Your task to perform on an android device: Empty the shopping cart on bestbuy.com. Add logitech g pro to the cart on bestbuy.com, then select checkout. Image 0: 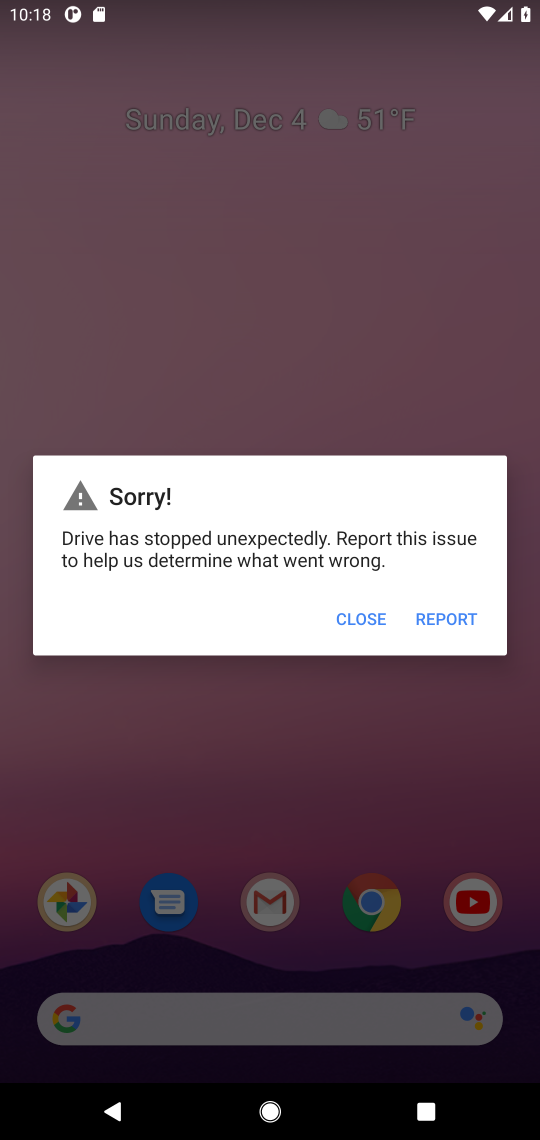
Step 0: click (353, 632)
Your task to perform on an android device: Empty the shopping cart on bestbuy.com. Add logitech g pro to the cart on bestbuy.com, then select checkout. Image 1: 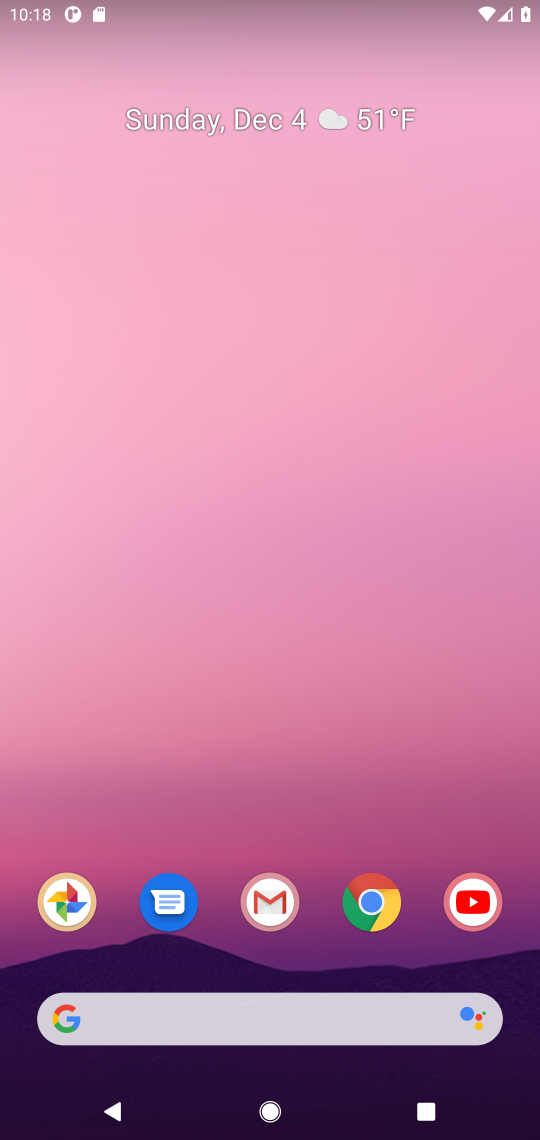
Step 1: click (384, 917)
Your task to perform on an android device: Empty the shopping cart on bestbuy.com. Add logitech g pro to the cart on bestbuy.com, then select checkout. Image 2: 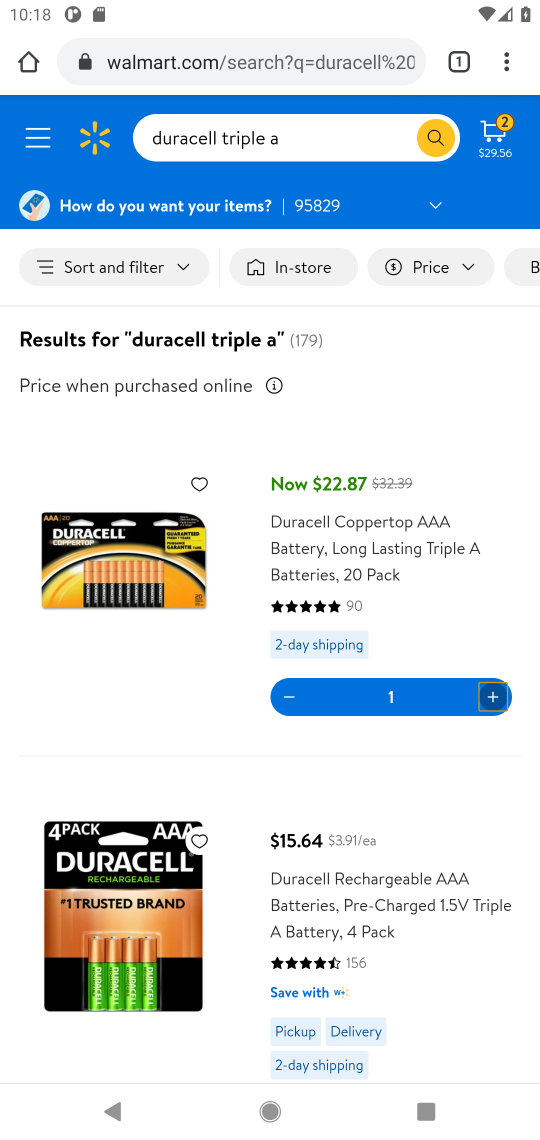
Step 2: click (488, 142)
Your task to perform on an android device: Empty the shopping cart on bestbuy.com. Add logitech g pro to the cart on bestbuy.com, then select checkout. Image 3: 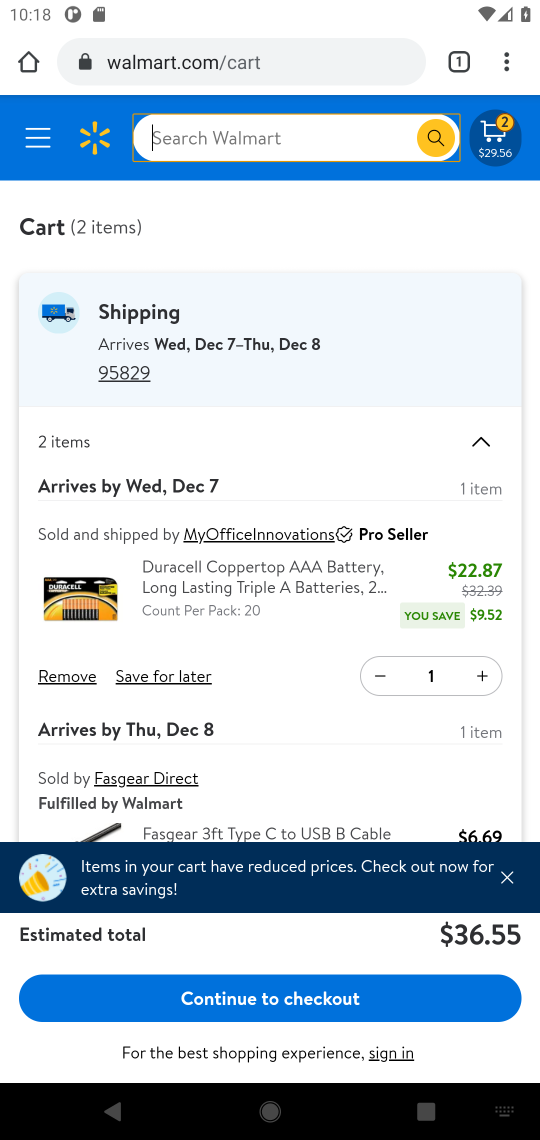
Step 3: click (67, 672)
Your task to perform on an android device: Empty the shopping cart on bestbuy.com. Add logitech g pro to the cart on bestbuy.com, then select checkout. Image 4: 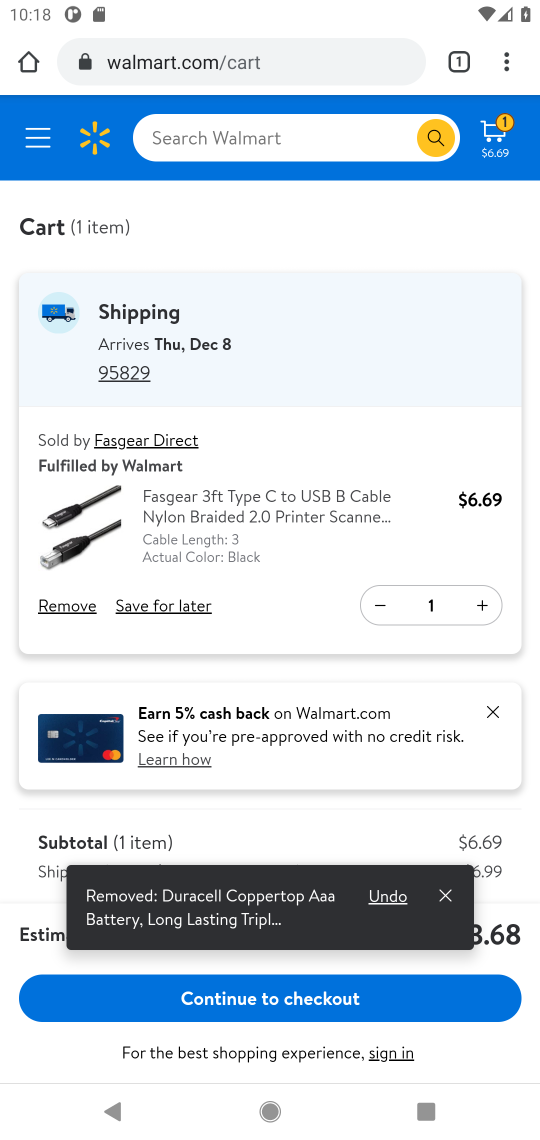
Step 4: click (58, 612)
Your task to perform on an android device: Empty the shopping cart on bestbuy.com. Add logitech g pro to the cart on bestbuy.com, then select checkout. Image 5: 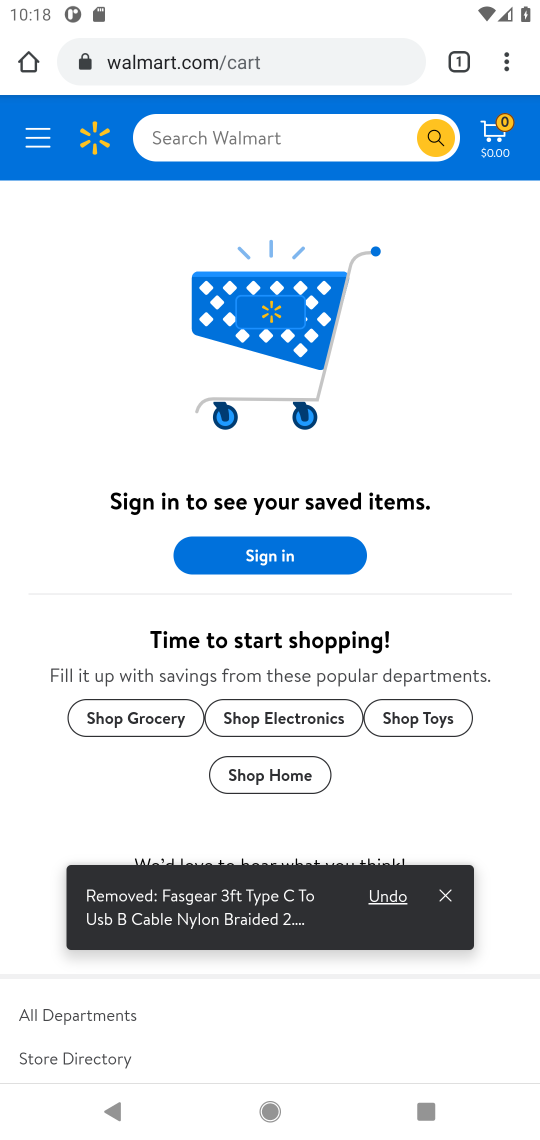
Step 5: click (217, 133)
Your task to perform on an android device: Empty the shopping cart on bestbuy.com. Add logitech g pro to the cart on bestbuy.com, then select checkout. Image 6: 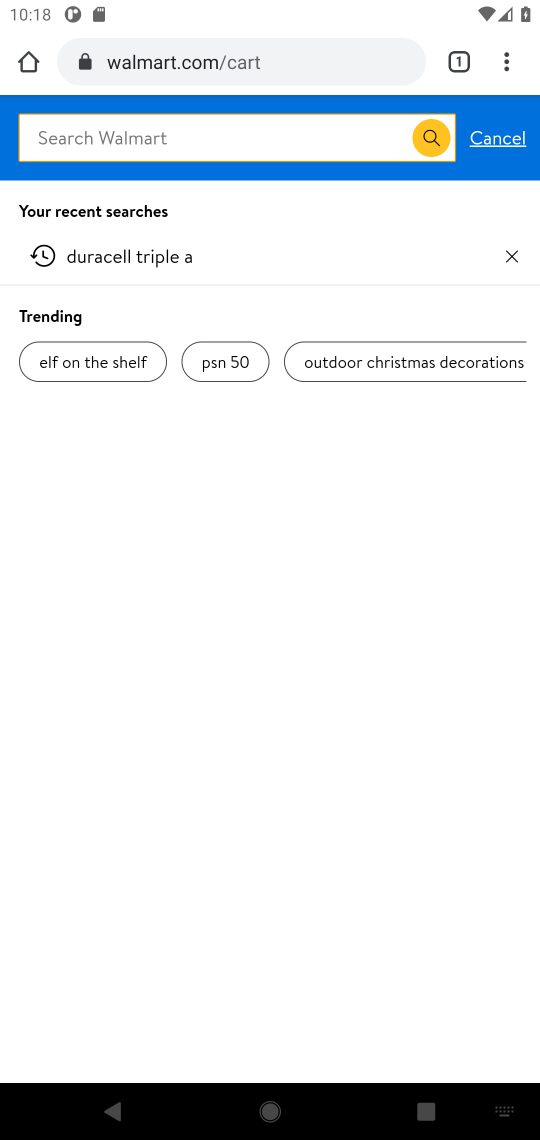
Step 6: type "logitech g pro "
Your task to perform on an android device: Empty the shopping cart on bestbuy.com. Add logitech g pro to the cart on bestbuy.com, then select checkout. Image 7: 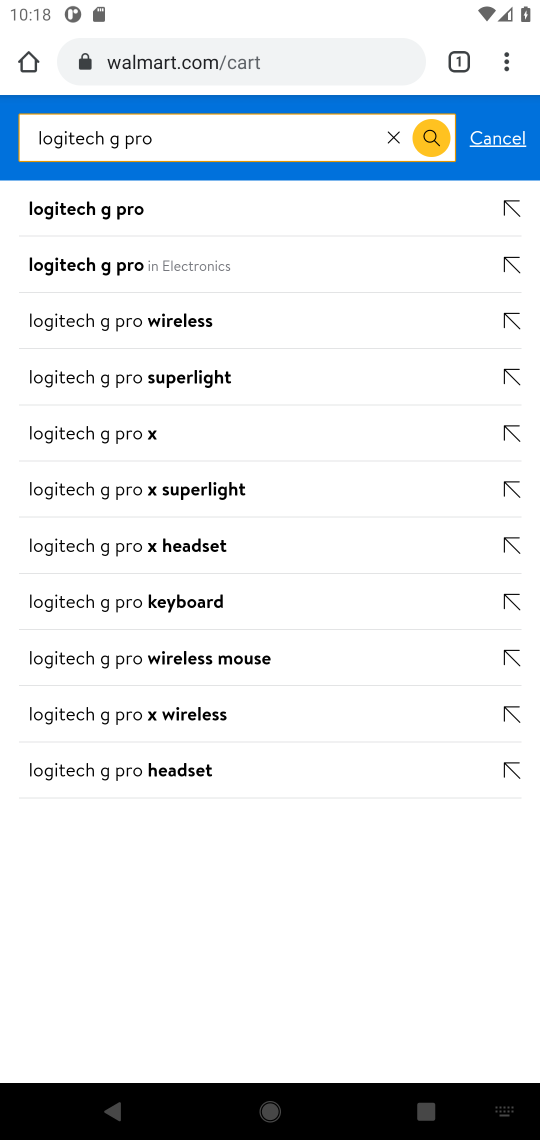
Step 7: click (129, 221)
Your task to perform on an android device: Empty the shopping cart on bestbuy.com. Add logitech g pro to the cart on bestbuy.com, then select checkout. Image 8: 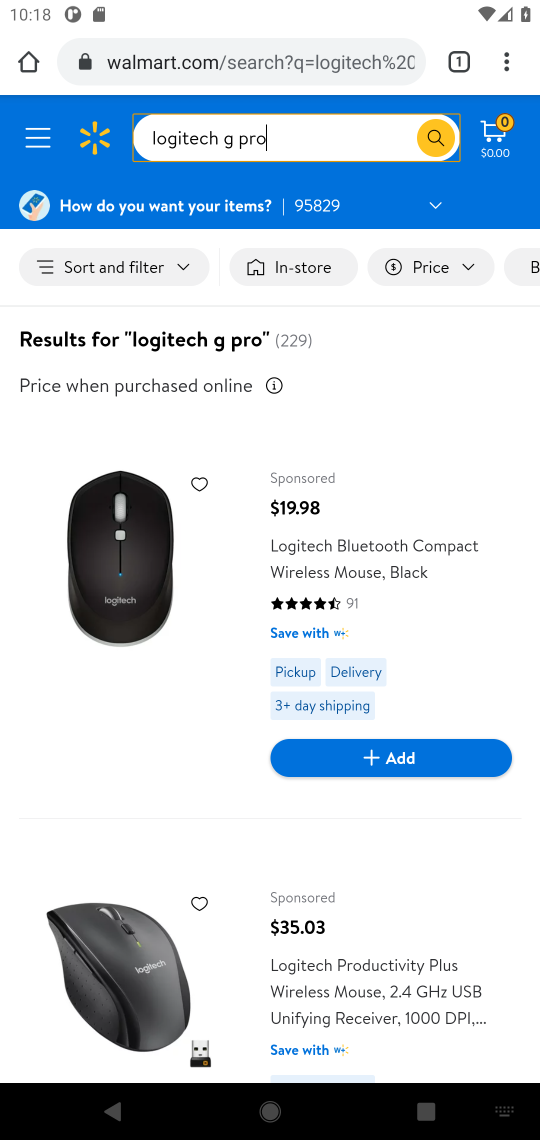
Step 8: drag from (424, 940) to (374, 357)
Your task to perform on an android device: Empty the shopping cart on bestbuy.com. Add logitech g pro to the cart on bestbuy.com, then select checkout. Image 9: 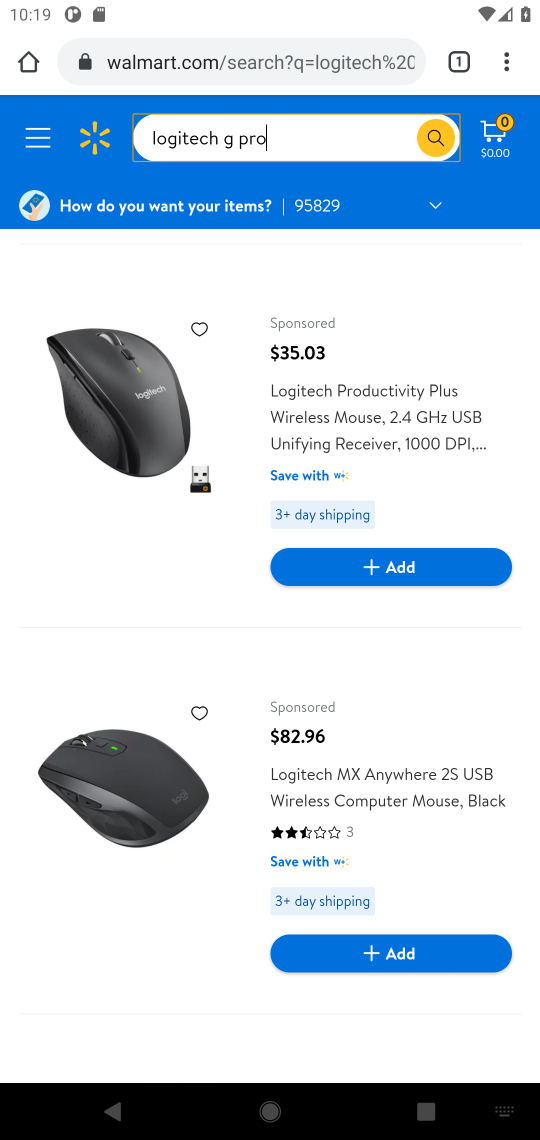
Step 9: drag from (340, 815) to (398, 245)
Your task to perform on an android device: Empty the shopping cart on bestbuy.com. Add logitech g pro to the cart on bestbuy.com, then select checkout. Image 10: 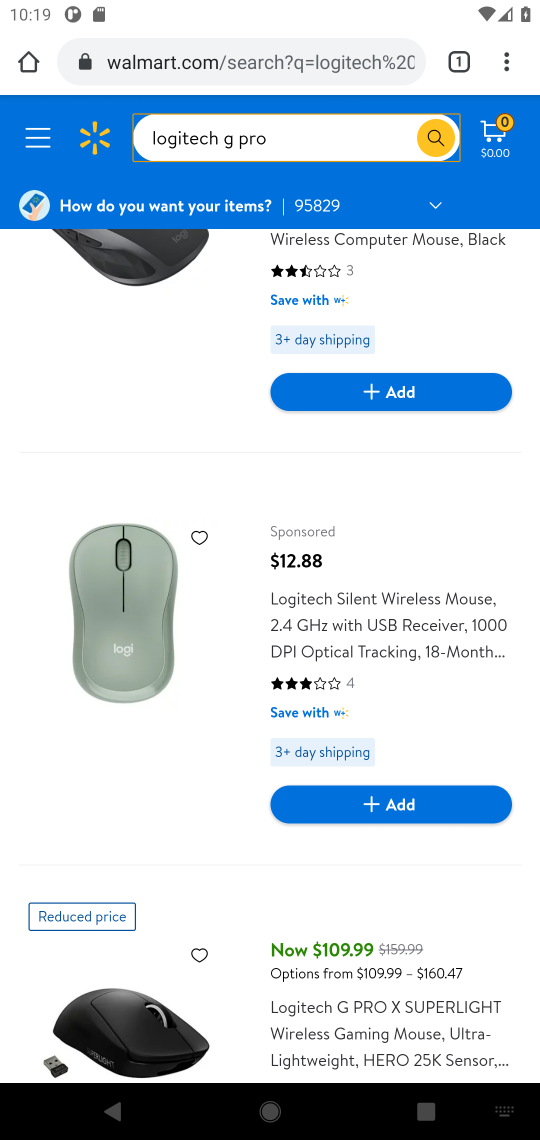
Step 10: drag from (360, 1048) to (398, 515)
Your task to perform on an android device: Empty the shopping cart on bestbuy.com. Add logitech g pro to the cart on bestbuy.com, then select checkout. Image 11: 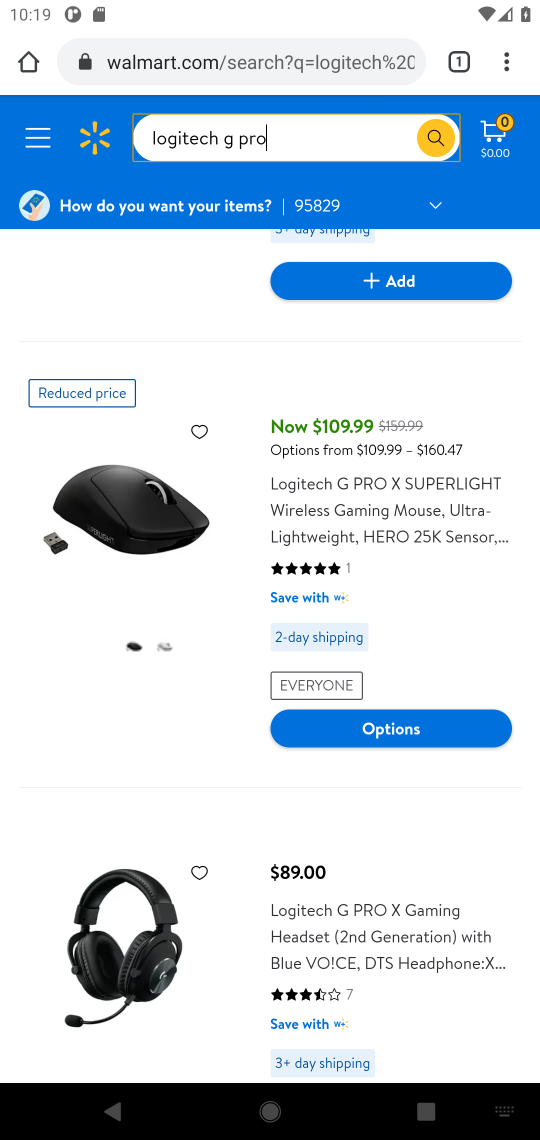
Step 11: click (401, 736)
Your task to perform on an android device: Empty the shopping cart on bestbuy.com. Add logitech g pro to the cart on bestbuy.com, then select checkout. Image 12: 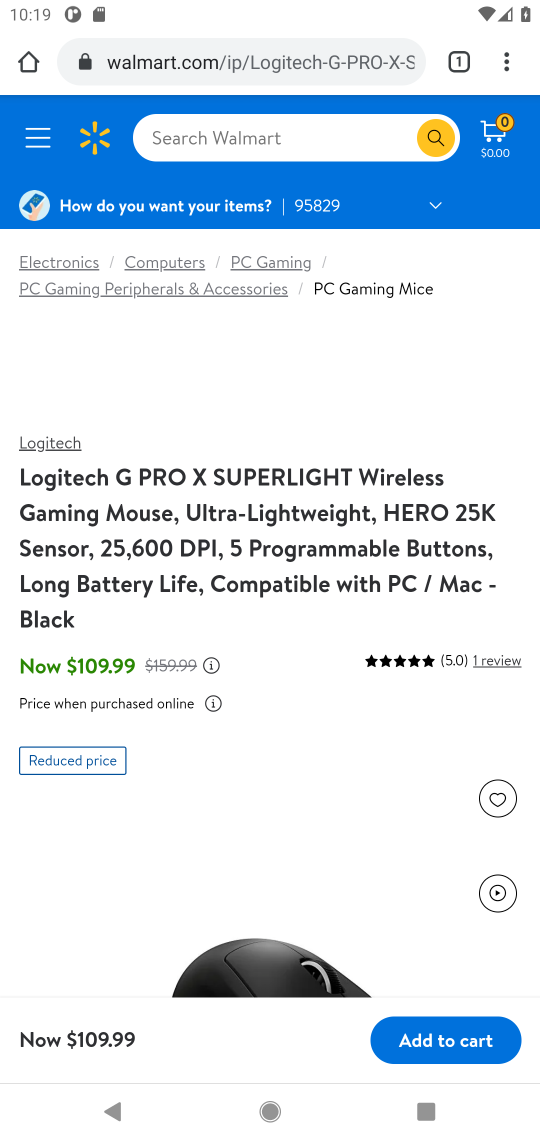
Step 12: click (429, 1042)
Your task to perform on an android device: Empty the shopping cart on bestbuy.com. Add logitech g pro to the cart on bestbuy.com, then select checkout. Image 13: 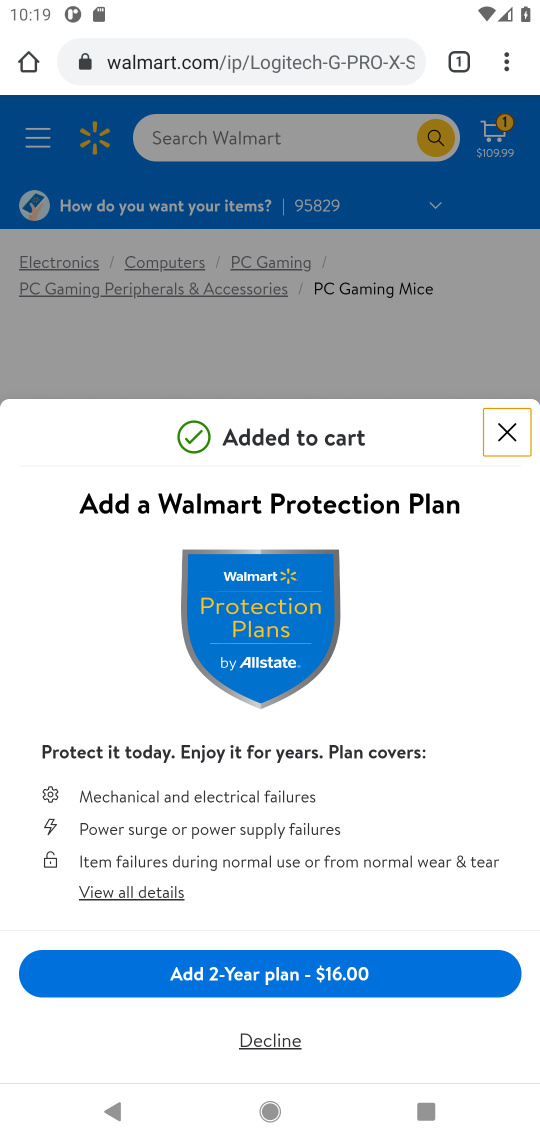
Step 13: task complete